Your task to perform on an android device: clear history in the chrome app Image 0: 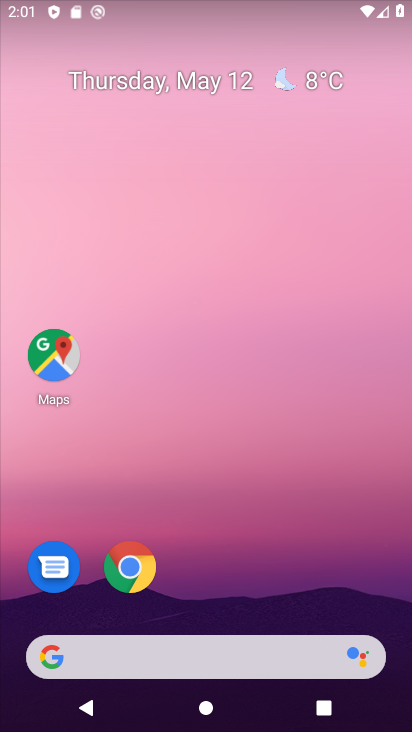
Step 0: click (134, 564)
Your task to perform on an android device: clear history in the chrome app Image 1: 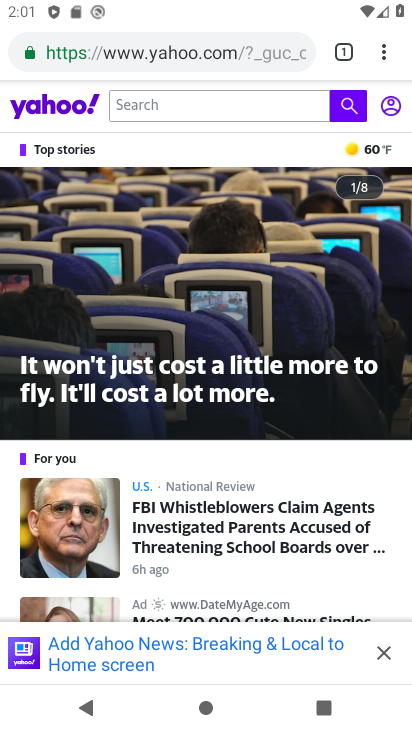
Step 1: drag from (385, 52) to (275, 294)
Your task to perform on an android device: clear history in the chrome app Image 2: 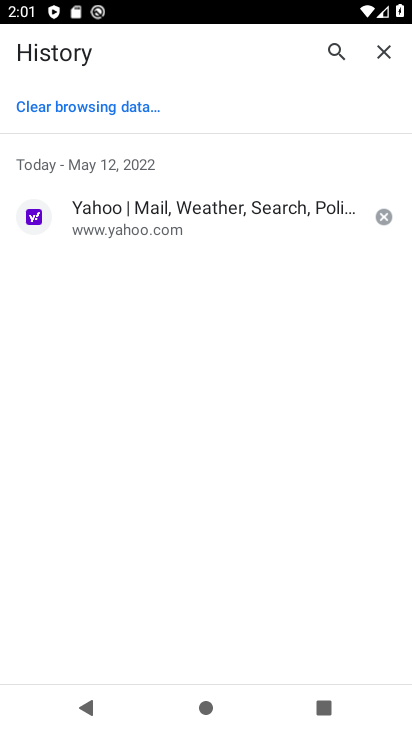
Step 2: click (72, 103)
Your task to perform on an android device: clear history in the chrome app Image 3: 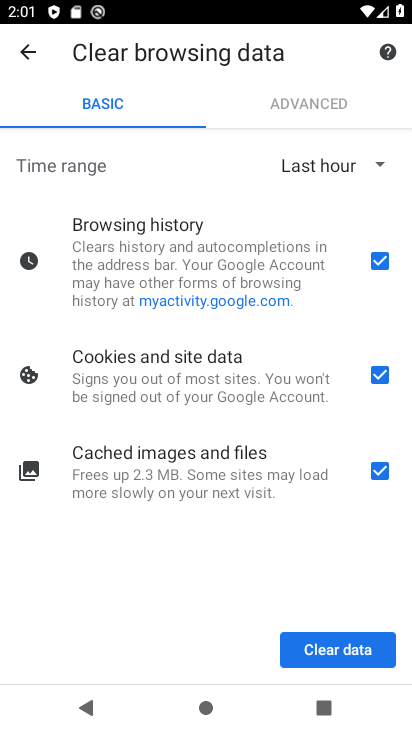
Step 3: click (384, 368)
Your task to perform on an android device: clear history in the chrome app Image 4: 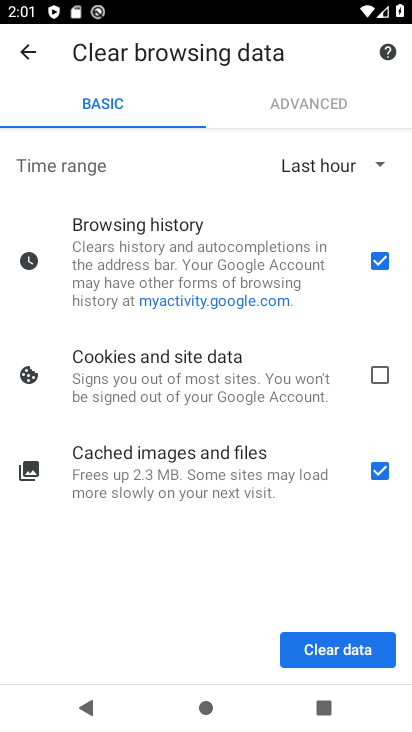
Step 4: click (387, 473)
Your task to perform on an android device: clear history in the chrome app Image 5: 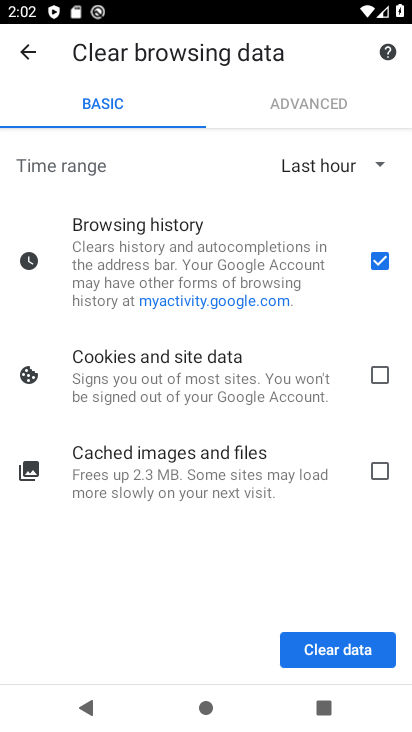
Step 5: click (342, 656)
Your task to perform on an android device: clear history in the chrome app Image 6: 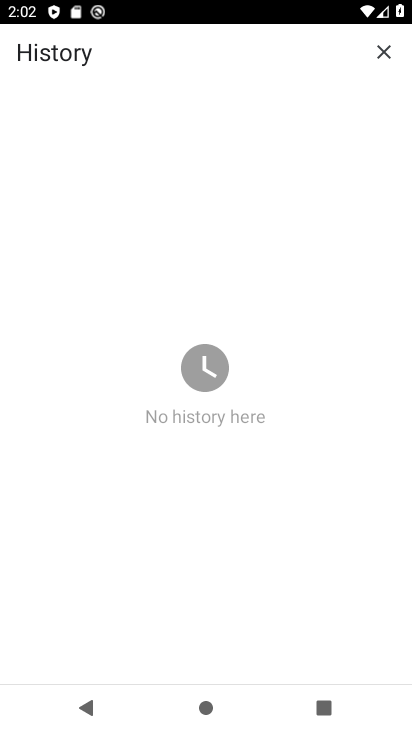
Step 6: task complete